Your task to perform on an android device: change the clock style Image 0: 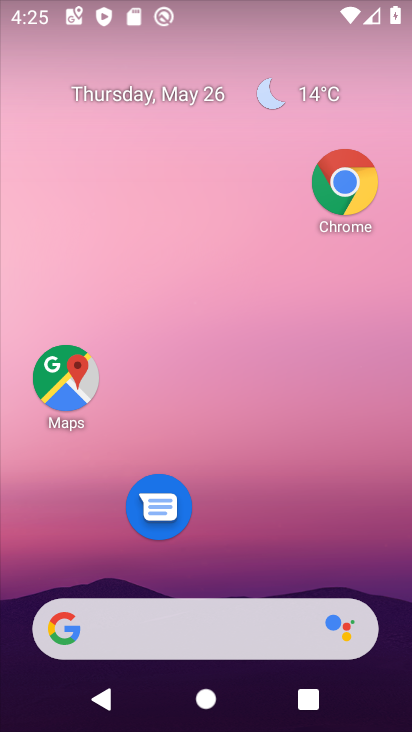
Step 0: drag from (212, 554) to (238, 98)
Your task to perform on an android device: change the clock style Image 1: 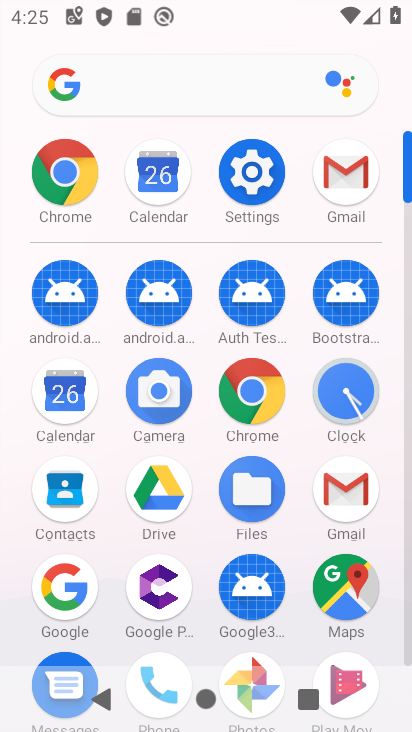
Step 1: click (336, 392)
Your task to perform on an android device: change the clock style Image 2: 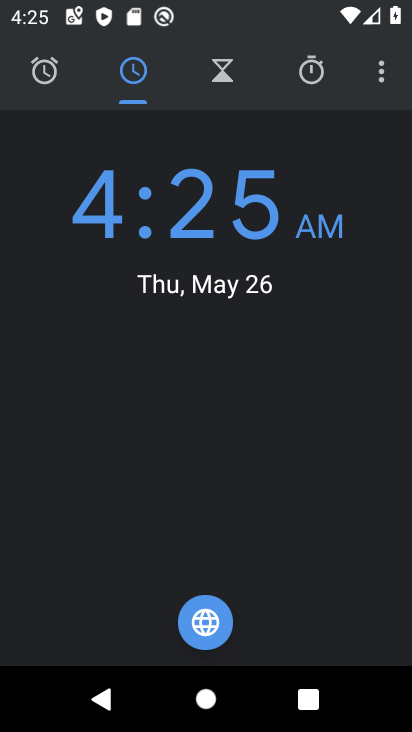
Step 2: click (377, 79)
Your task to perform on an android device: change the clock style Image 3: 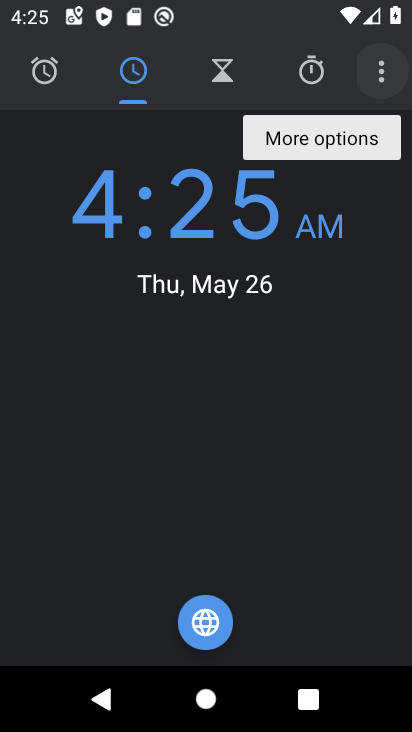
Step 3: click (377, 79)
Your task to perform on an android device: change the clock style Image 4: 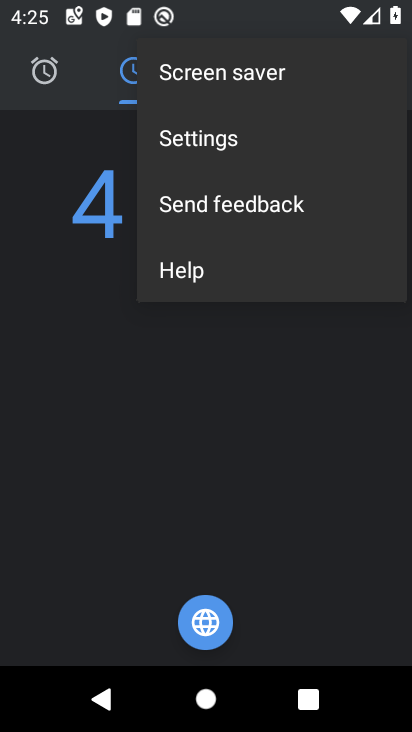
Step 4: click (222, 135)
Your task to perform on an android device: change the clock style Image 5: 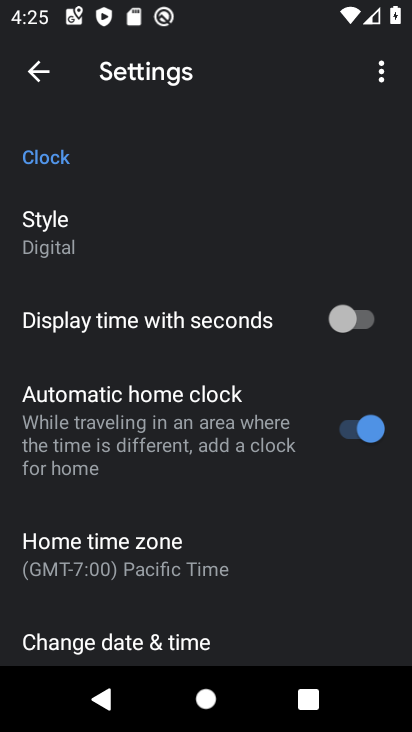
Step 5: click (42, 230)
Your task to perform on an android device: change the clock style Image 6: 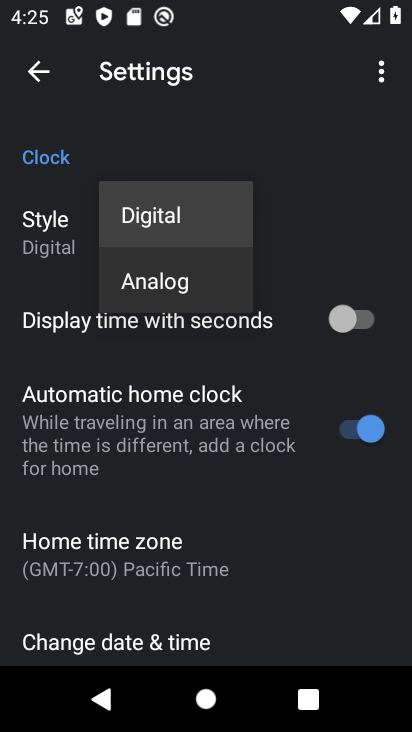
Step 6: click (180, 278)
Your task to perform on an android device: change the clock style Image 7: 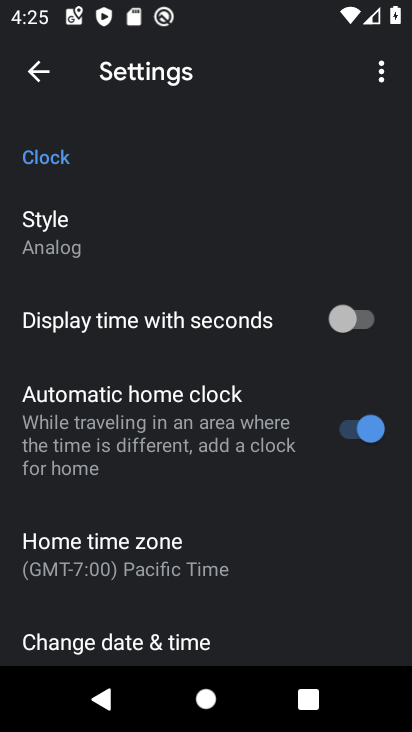
Step 7: task complete